Your task to perform on an android device: toggle notification dots Image 0: 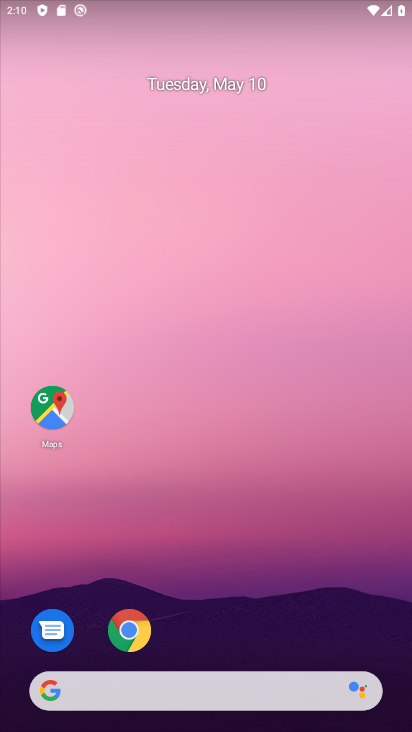
Step 0: drag from (236, 534) to (10, 387)
Your task to perform on an android device: toggle notification dots Image 1: 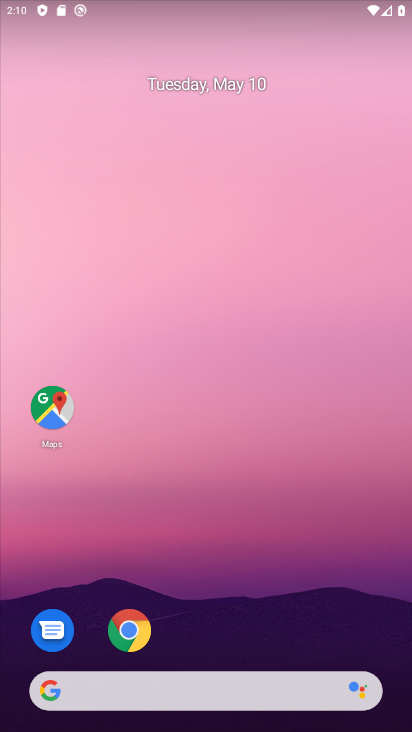
Step 1: drag from (349, 643) to (52, 124)
Your task to perform on an android device: toggle notification dots Image 2: 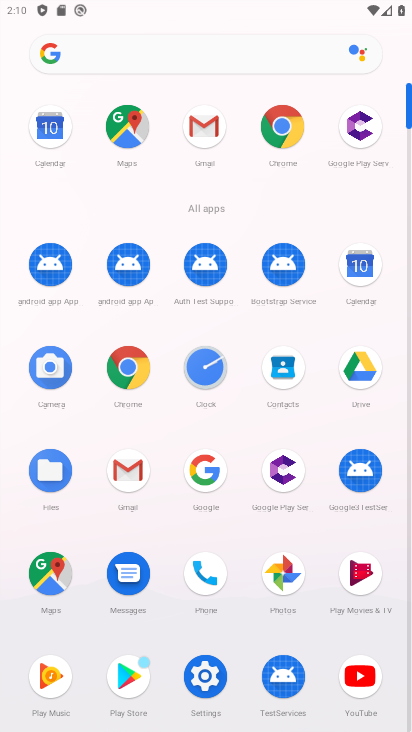
Step 2: click (196, 673)
Your task to perform on an android device: toggle notification dots Image 3: 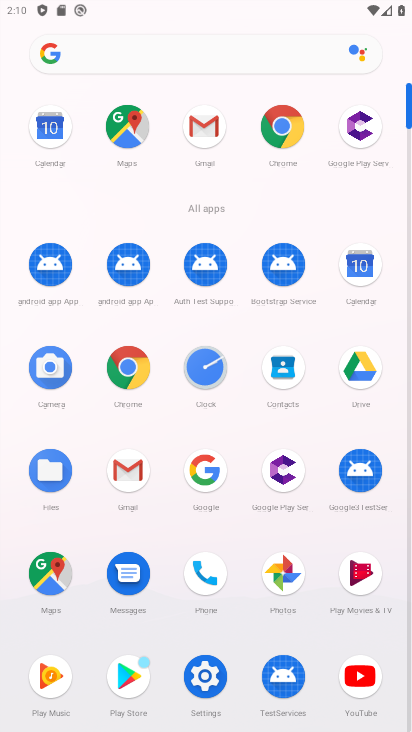
Step 3: click (196, 673)
Your task to perform on an android device: toggle notification dots Image 4: 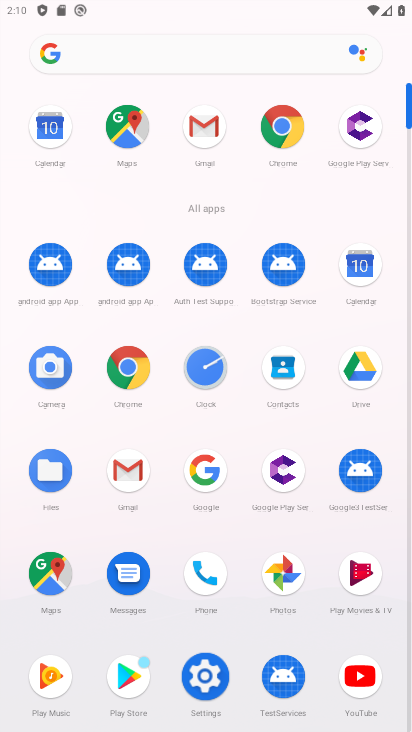
Step 4: click (198, 673)
Your task to perform on an android device: toggle notification dots Image 5: 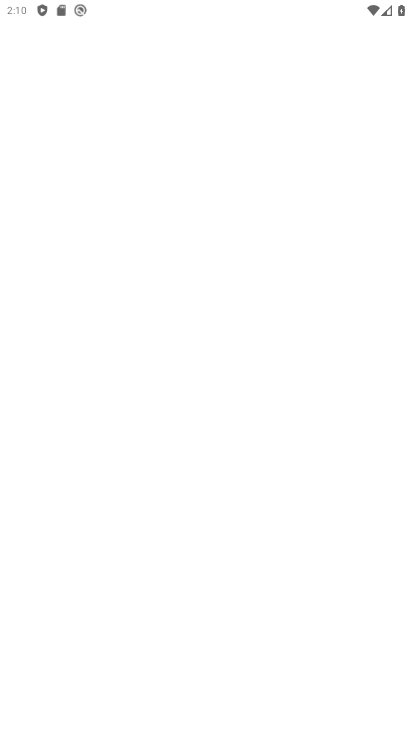
Step 5: click (199, 673)
Your task to perform on an android device: toggle notification dots Image 6: 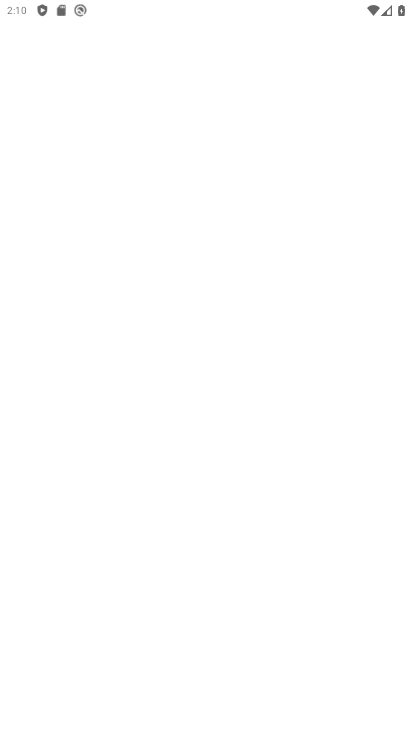
Step 6: click (212, 672)
Your task to perform on an android device: toggle notification dots Image 7: 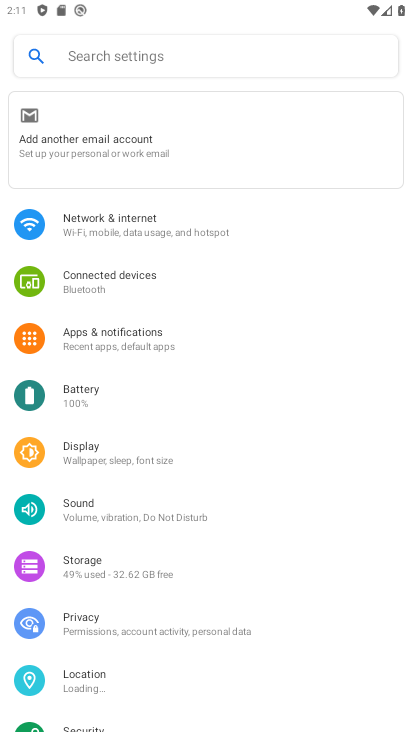
Step 7: click (125, 343)
Your task to perform on an android device: toggle notification dots Image 8: 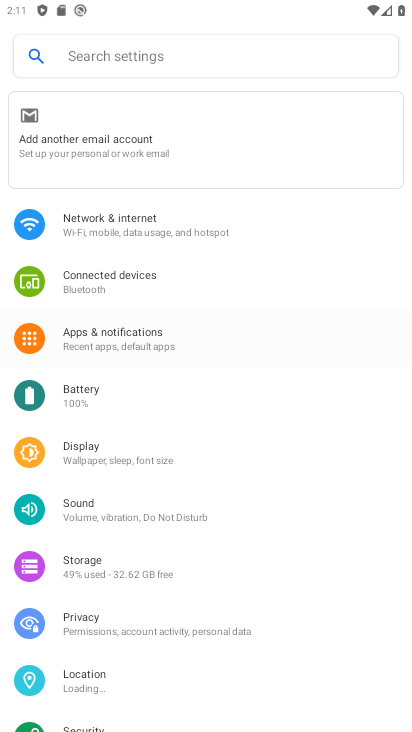
Step 8: click (124, 330)
Your task to perform on an android device: toggle notification dots Image 9: 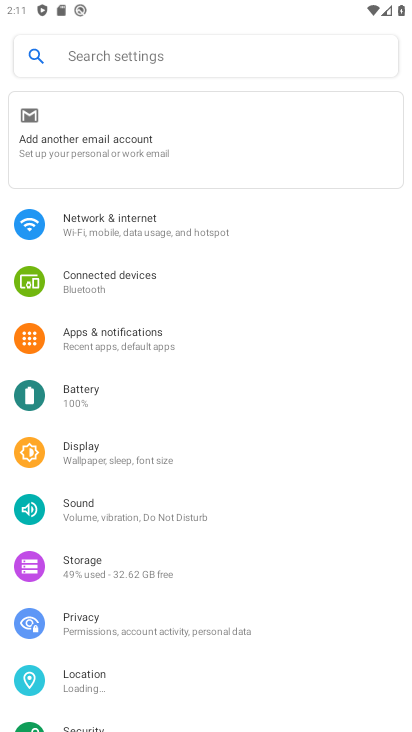
Step 9: click (124, 330)
Your task to perform on an android device: toggle notification dots Image 10: 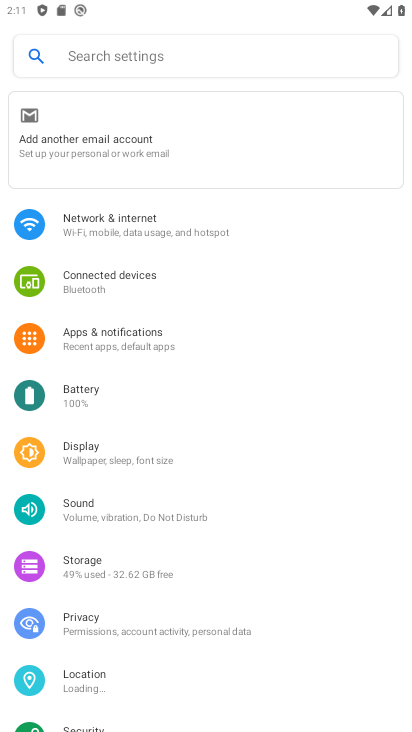
Step 10: click (119, 335)
Your task to perform on an android device: toggle notification dots Image 11: 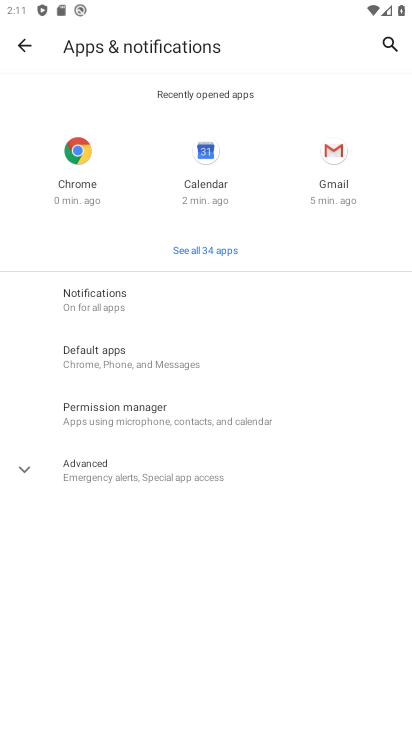
Step 11: click (98, 292)
Your task to perform on an android device: toggle notification dots Image 12: 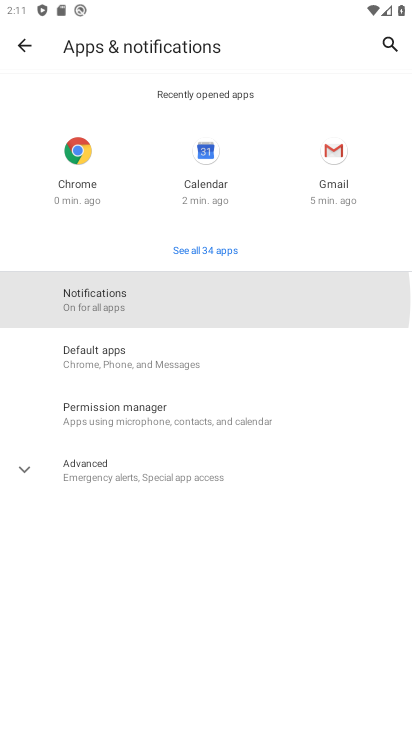
Step 12: click (98, 292)
Your task to perform on an android device: toggle notification dots Image 13: 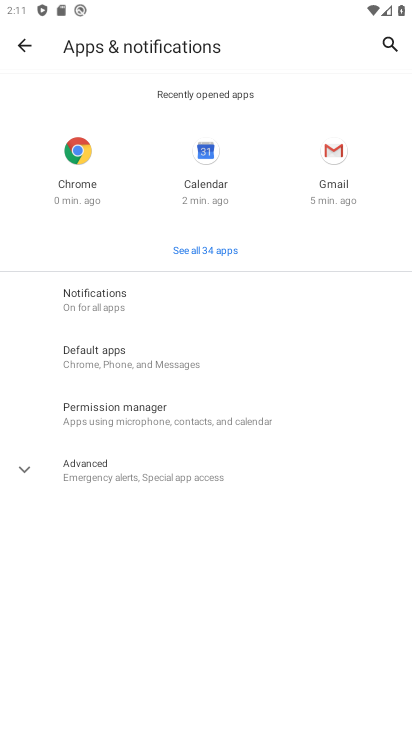
Step 13: click (97, 294)
Your task to perform on an android device: toggle notification dots Image 14: 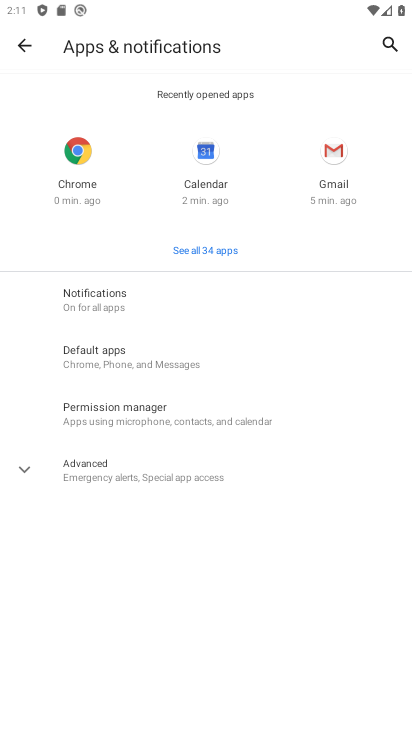
Step 14: click (96, 299)
Your task to perform on an android device: toggle notification dots Image 15: 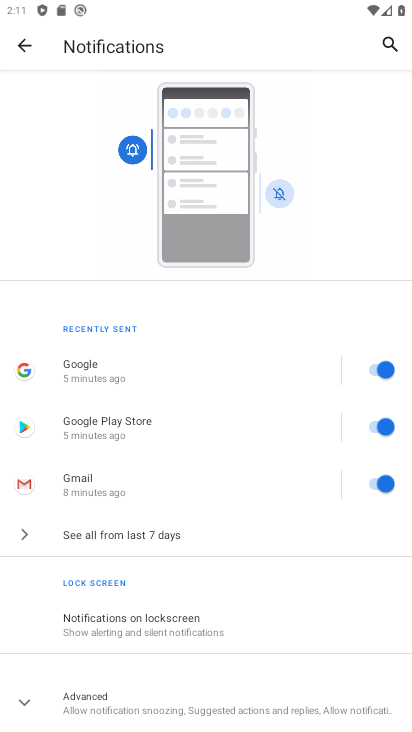
Step 15: drag from (161, 621) to (79, 468)
Your task to perform on an android device: toggle notification dots Image 16: 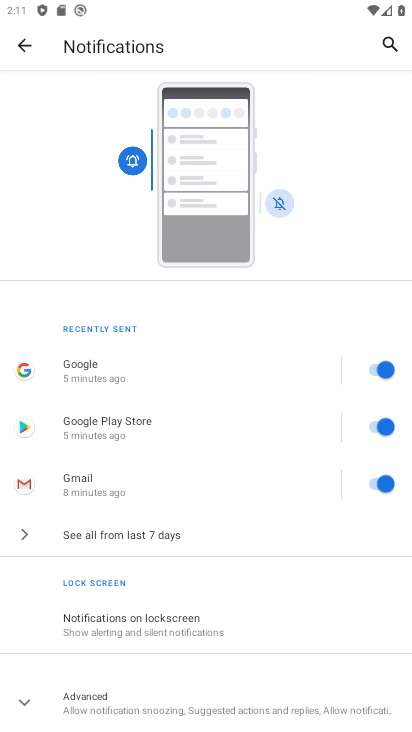
Step 16: click (105, 700)
Your task to perform on an android device: toggle notification dots Image 17: 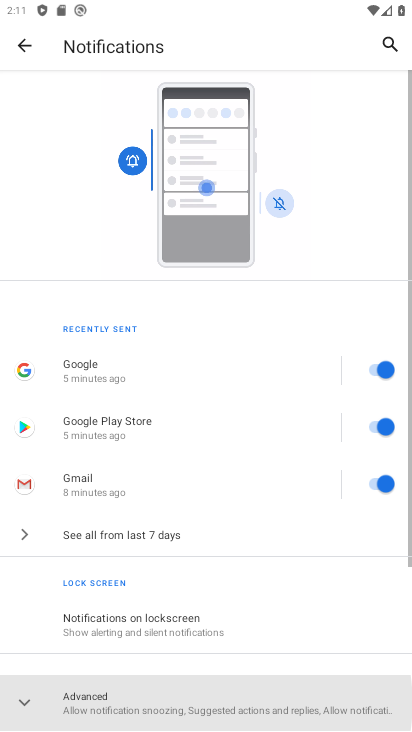
Step 17: click (105, 700)
Your task to perform on an android device: toggle notification dots Image 18: 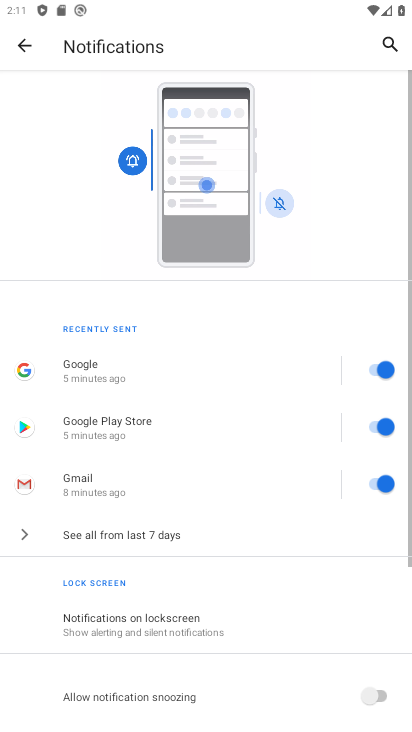
Step 18: click (104, 701)
Your task to perform on an android device: toggle notification dots Image 19: 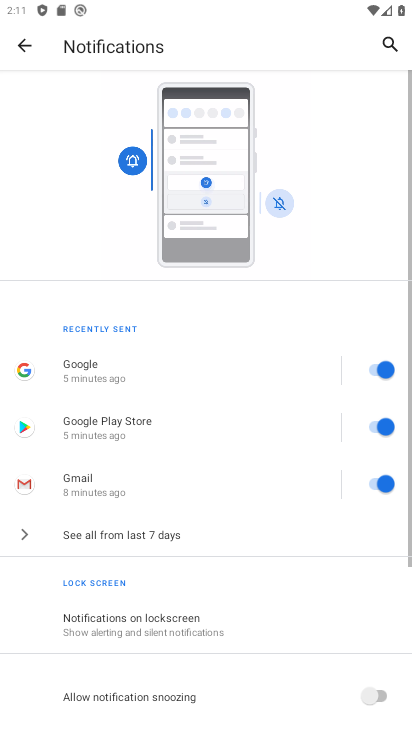
Step 19: drag from (190, 608) to (135, 174)
Your task to perform on an android device: toggle notification dots Image 20: 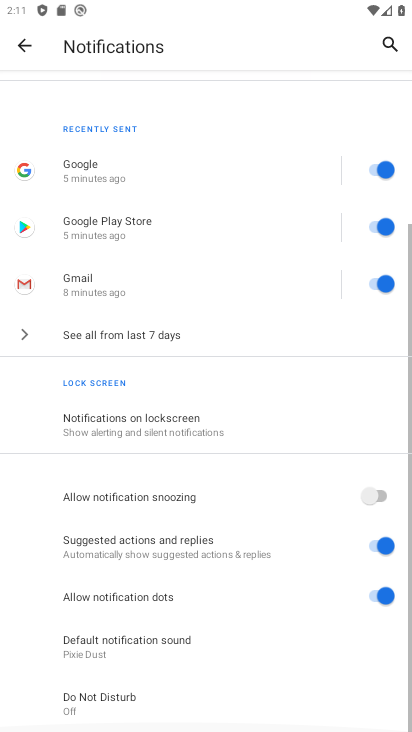
Step 20: drag from (264, 493) to (236, 163)
Your task to perform on an android device: toggle notification dots Image 21: 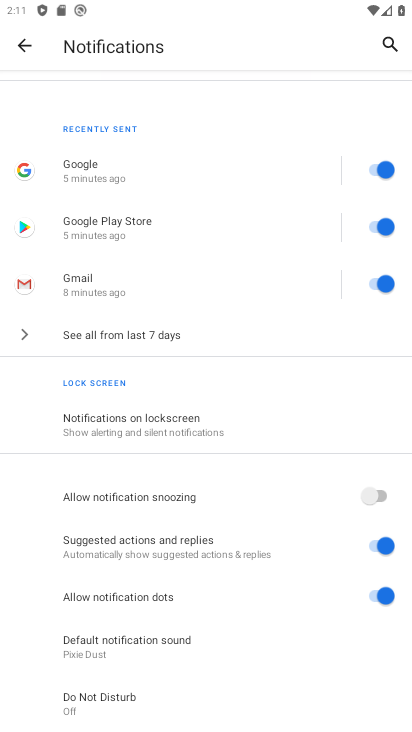
Step 21: click (383, 592)
Your task to perform on an android device: toggle notification dots Image 22: 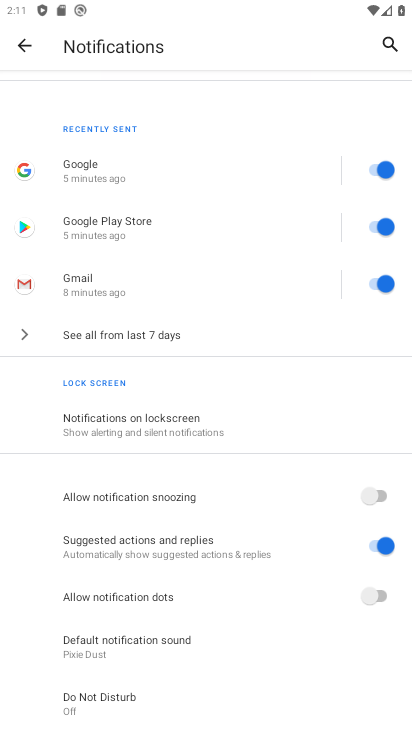
Step 22: task complete